Your task to perform on an android device: Go to Yahoo.com Image 0: 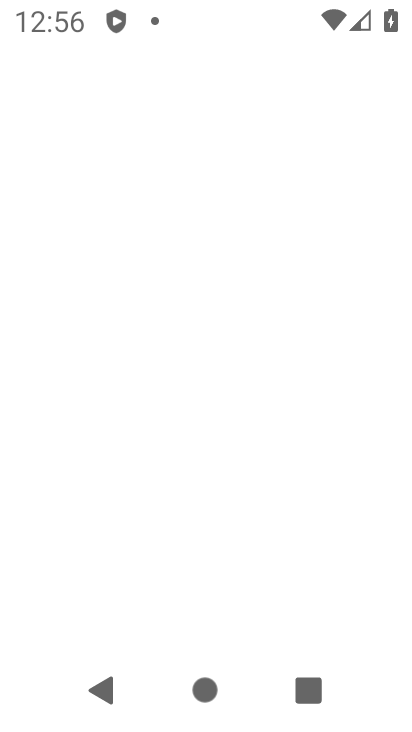
Step 0: press back button
Your task to perform on an android device: Go to Yahoo.com Image 1: 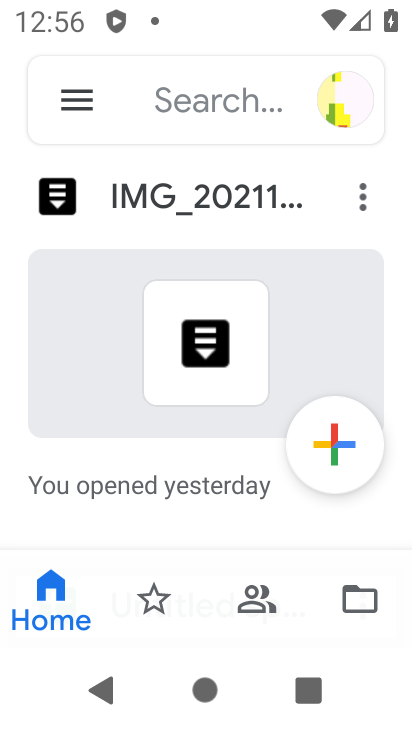
Step 1: press back button
Your task to perform on an android device: Go to Yahoo.com Image 2: 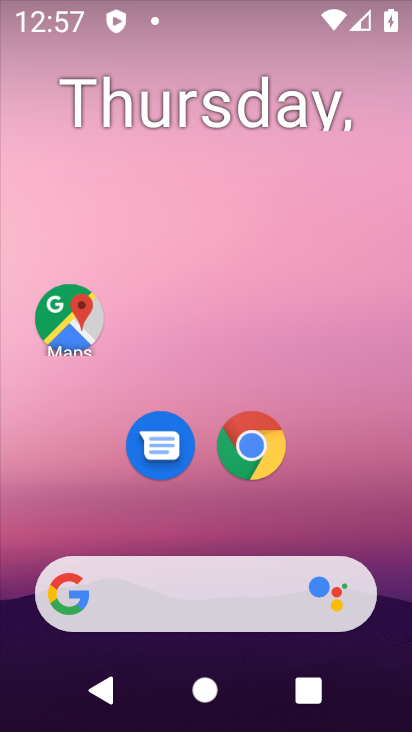
Step 2: drag from (232, 385) to (329, 141)
Your task to perform on an android device: Go to Yahoo.com Image 3: 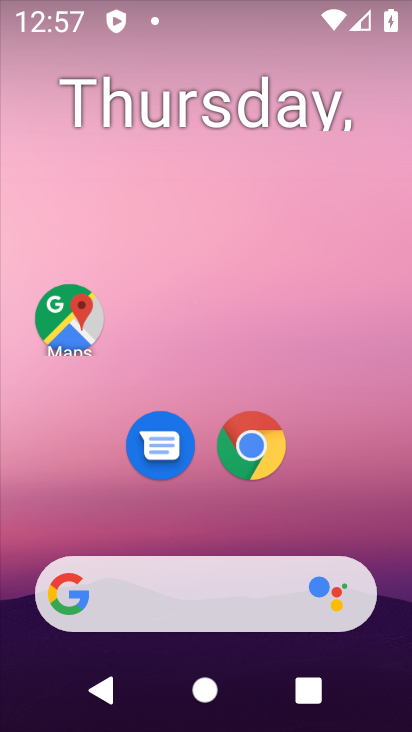
Step 3: click (229, 451)
Your task to perform on an android device: Go to Yahoo.com Image 4: 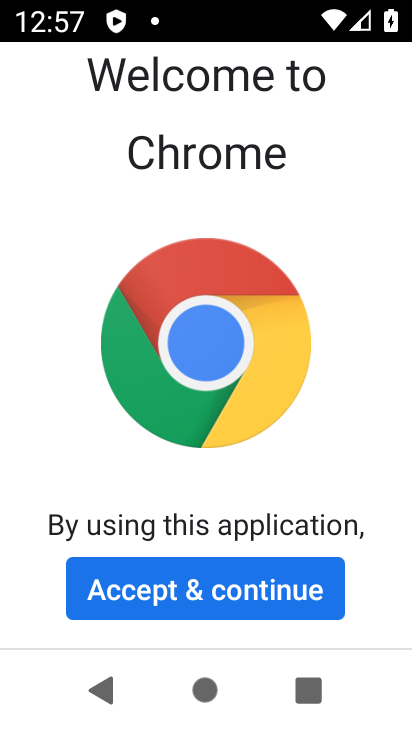
Step 4: click (238, 589)
Your task to perform on an android device: Go to Yahoo.com Image 5: 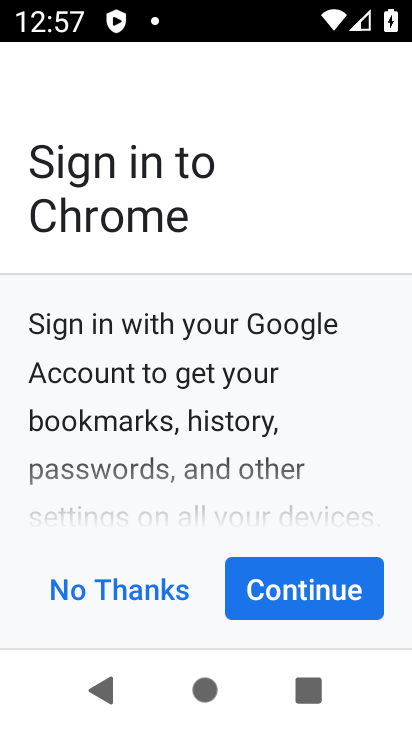
Step 5: click (299, 608)
Your task to perform on an android device: Go to Yahoo.com Image 6: 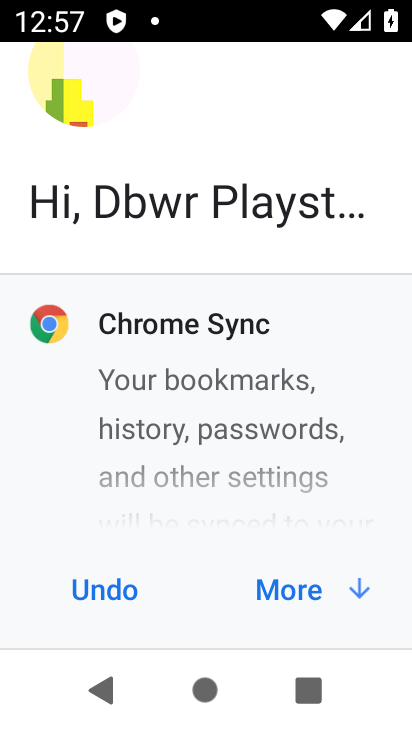
Step 6: click (300, 608)
Your task to perform on an android device: Go to Yahoo.com Image 7: 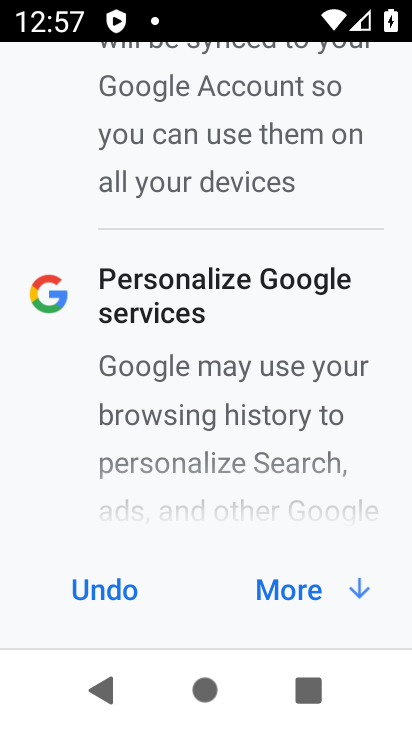
Step 7: click (300, 608)
Your task to perform on an android device: Go to Yahoo.com Image 8: 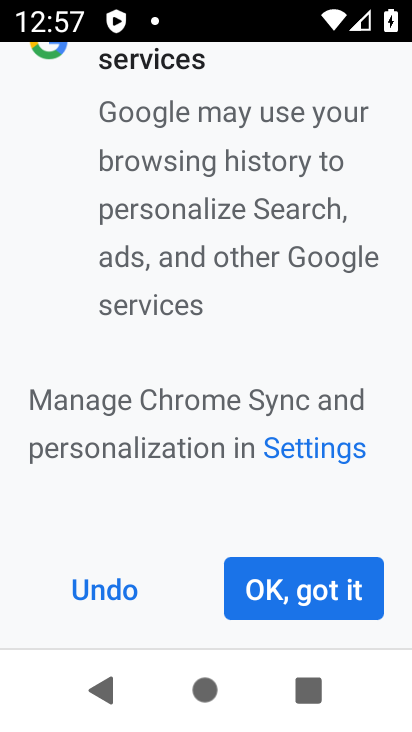
Step 8: click (339, 613)
Your task to perform on an android device: Go to Yahoo.com Image 9: 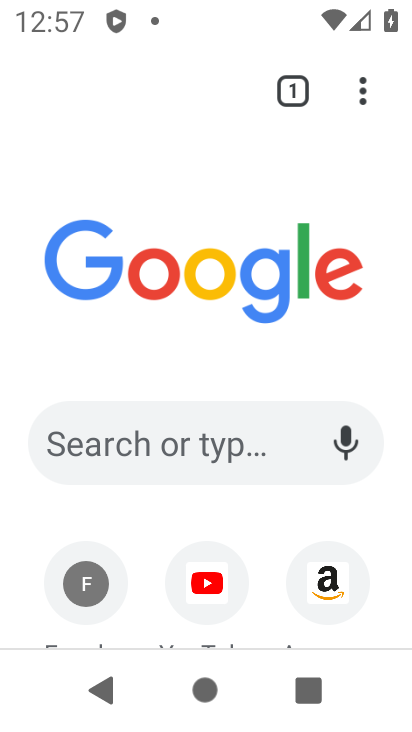
Step 9: drag from (238, 544) to (331, 238)
Your task to perform on an android device: Go to Yahoo.com Image 10: 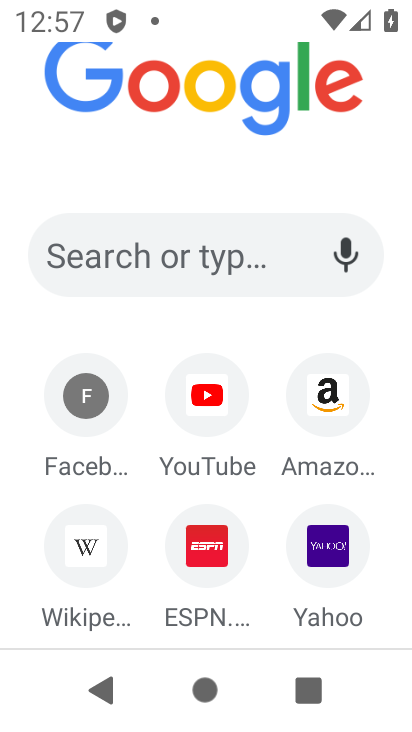
Step 10: click (319, 551)
Your task to perform on an android device: Go to Yahoo.com Image 11: 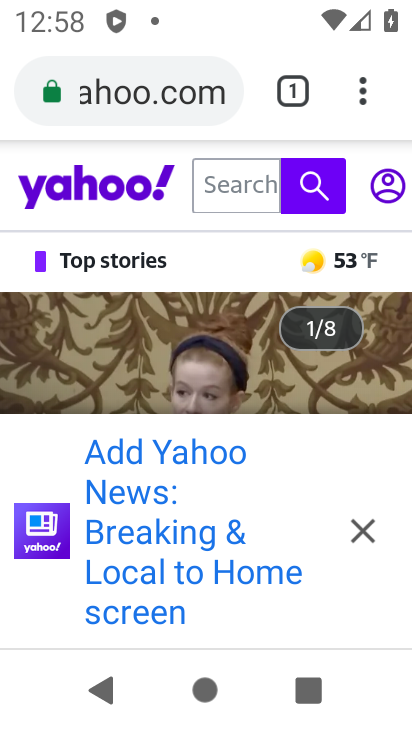
Step 11: click (354, 535)
Your task to perform on an android device: Go to Yahoo.com Image 12: 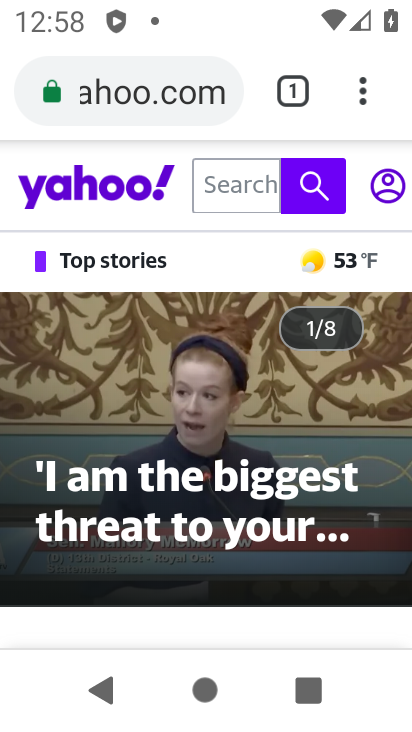
Step 12: task complete